Your task to perform on an android device: Go to accessibility settings Image 0: 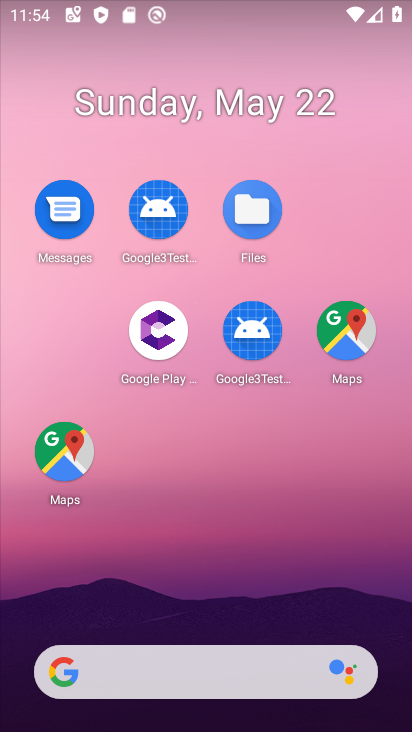
Step 0: drag from (195, 610) to (195, 103)
Your task to perform on an android device: Go to accessibility settings Image 1: 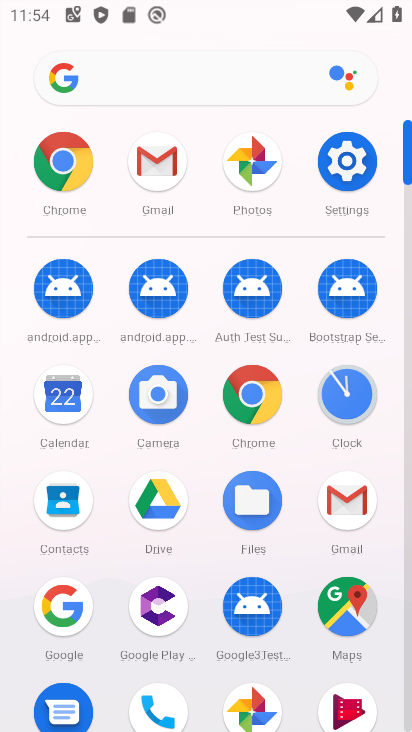
Step 1: click (336, 154)
Your task to perform on an android device: Go to accessibility settings Image 2: 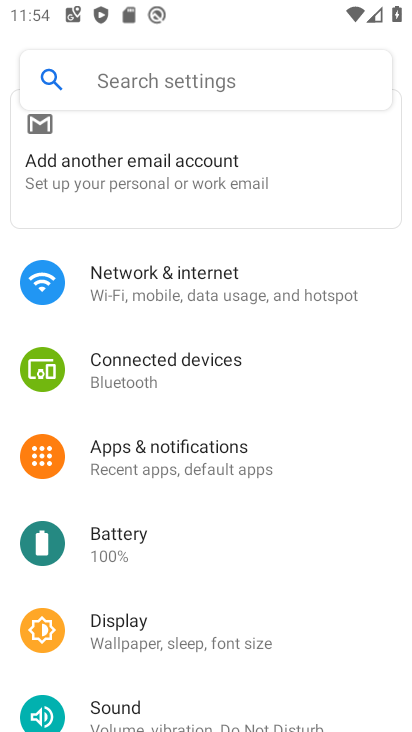
Step 2: drag from (263, 489) to (226, 50)
Your task to perform on an android device: Go to accessibility settings Image 3: 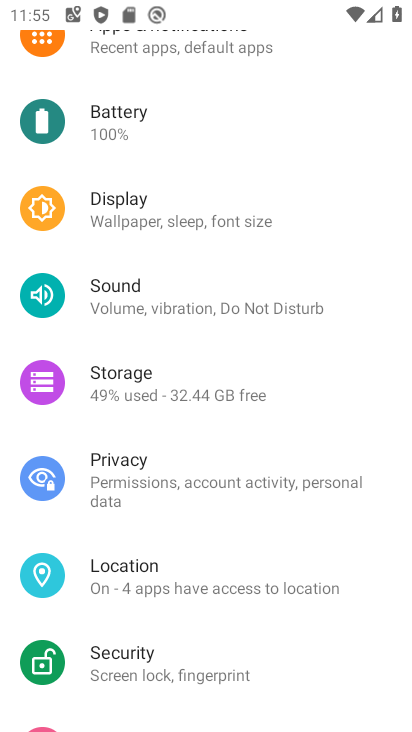
Step 3: drag from (195, 608) to (153, 103)
Your task to perform on an android device: Go to accessibility settings Image 4: 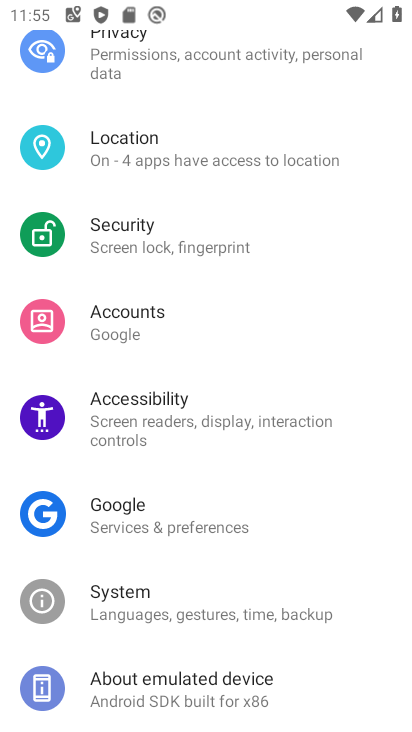
Step 4: click (176, 390)
Your task to perform on an android device: Go to accessibility settings Image 5: 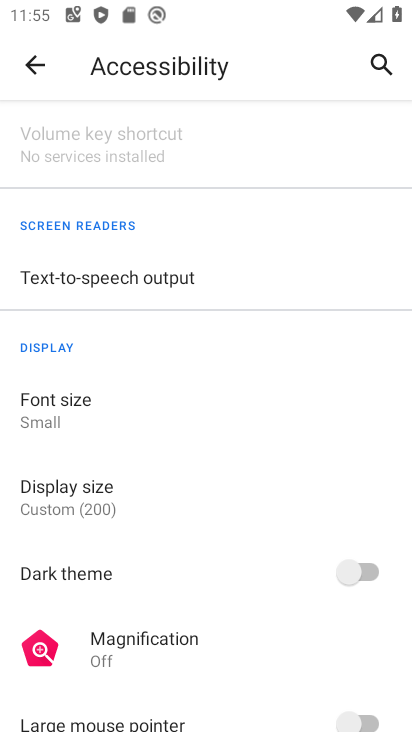
Step 5: task complete